Your task to perform on an android device: turn vacation reply on in the gmail app Image 0: 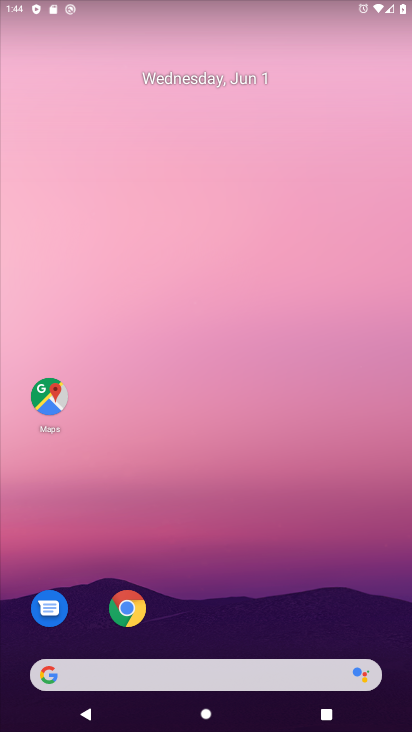
Step 0: drag from (216, 629) to (323, 116)
Your task to perform on an android device: turn vacation reply on in the gmail app Image 1: 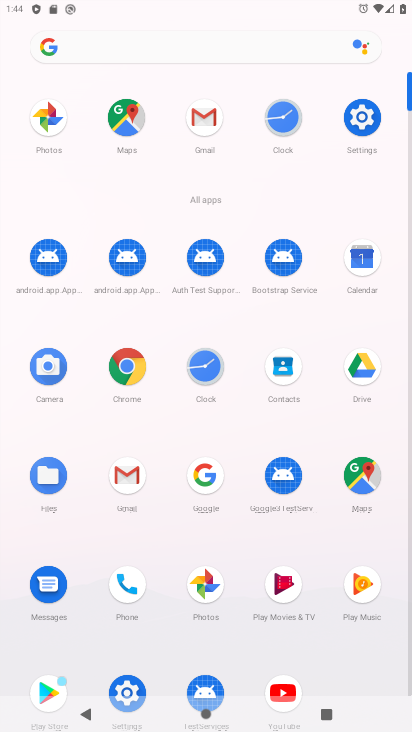
Step 1: click (113, 488)
Your task to perform on an android device: turn vacation reply on in the gmail app Image 2: 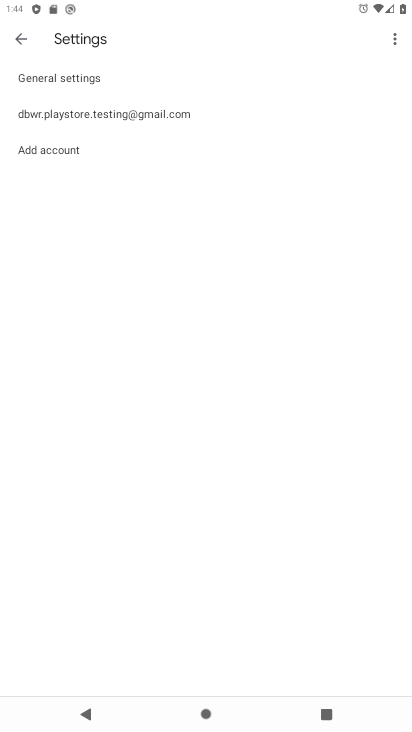
Step 2: click (235, 124)
Your task to perform on an android device: turn vacation reply on in the gmail app Image 3: 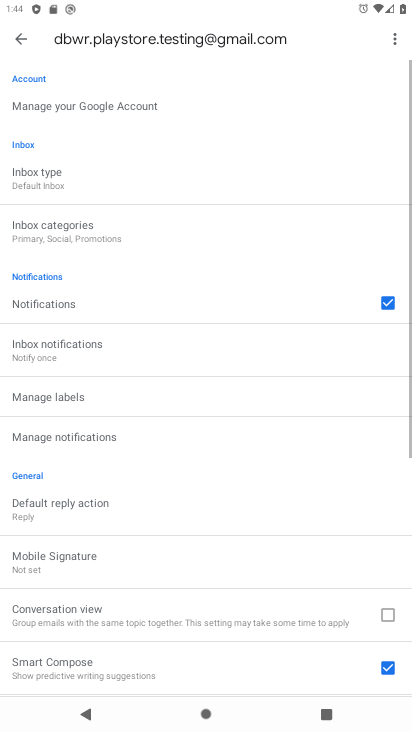
Step 3: drag from (149, 689) to (235, 368)
Your task to perform on an android device: turn vacation reply on in the gmail app Image 4: 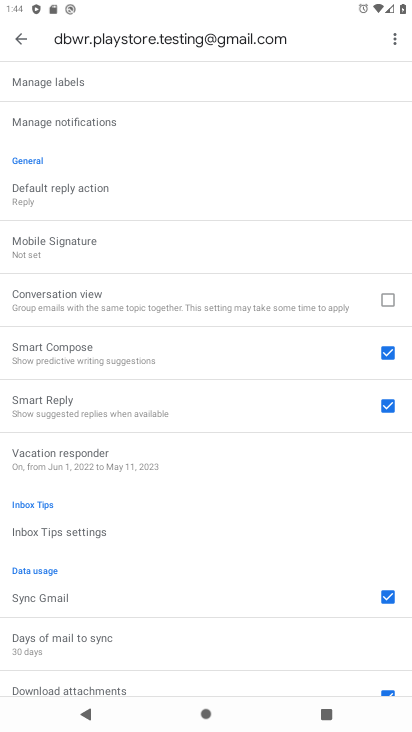
Step 4: click (153, 473)
Your task to perform on an android device: turn vacation reply on in the gmail app Image 5: 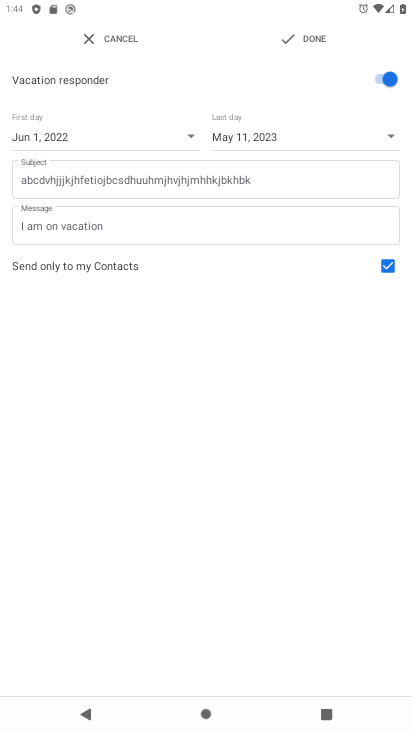
Step 5: task complete